Your task to perform on an android device: Open ESPN.com Image 0: 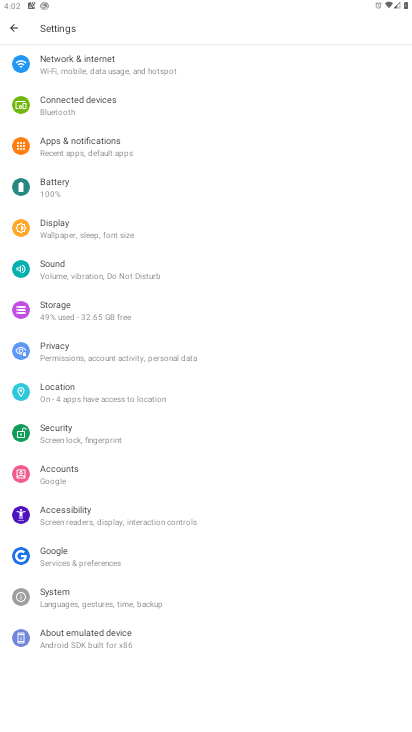
Step 0: task complete